Your task to perform on an android device: delete a single message in the gmail app Image 0: 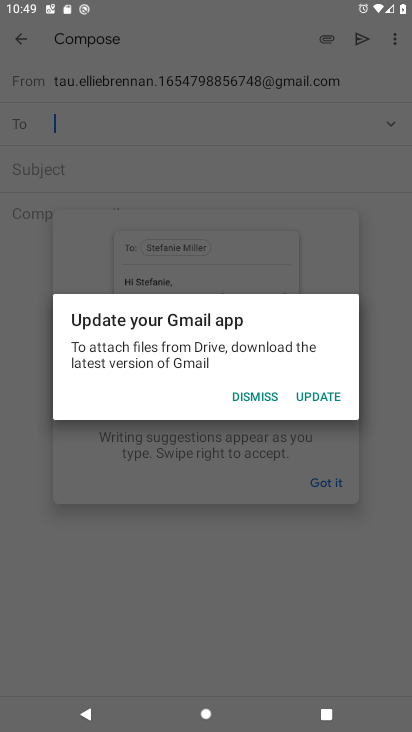
Step 0: press home button
Your task to perform on an android device: delete a single message in the gmail app Image 1: 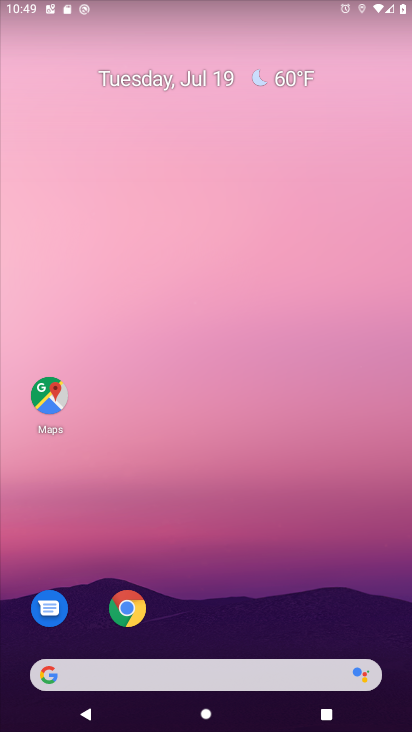
Step 1: drag from (225, 650) to (157, 105)
Your task to perform on an android device: delete a single message in the gmail app Image 2: 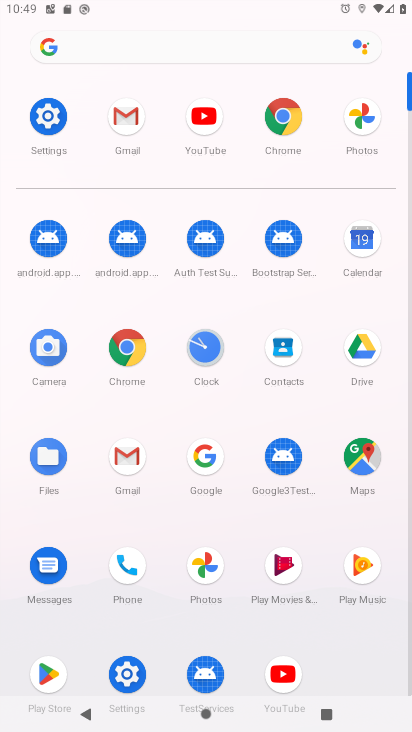
Step 2: click (126, 451)
Your task to perform on an android device: delete a single message in the gmail app Image 3: 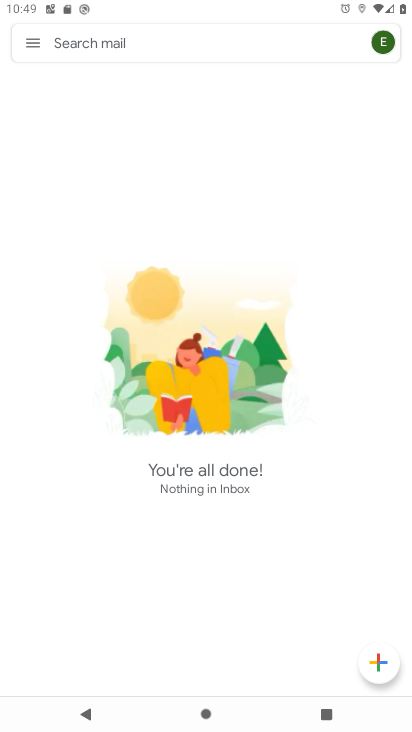
Step 3: click (25, 39)
Your task to perform on an android device: delete a single message in the gmail app Image 4: 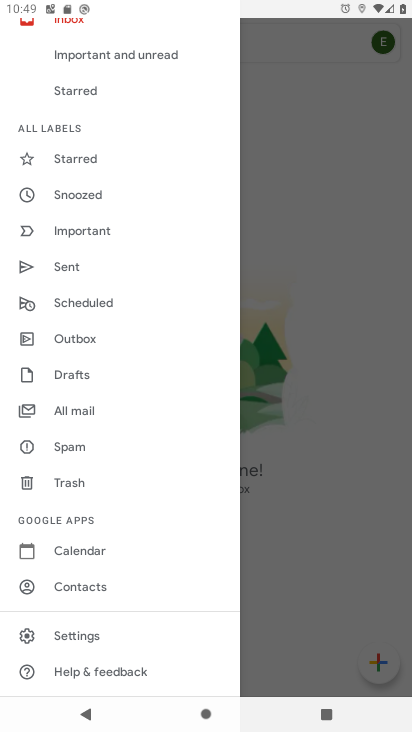
Step 4: click (68, 404)
Your task to perform on an android device: delete a single message in the gmail app Image 5: 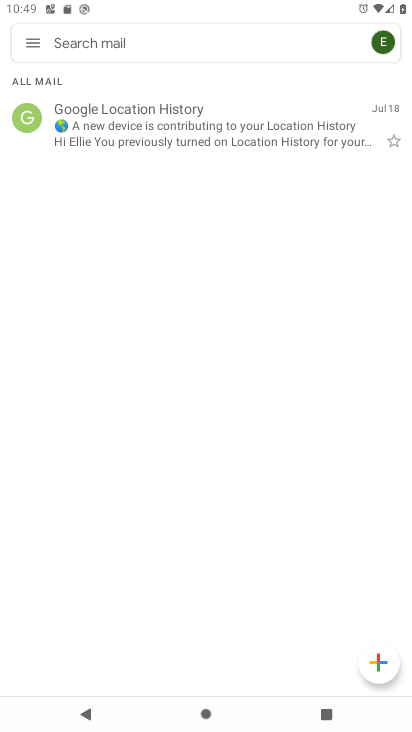
Step 5: click (153, 139)
Your task to perform on an android device: delete a single message in the gmail app Image 6: 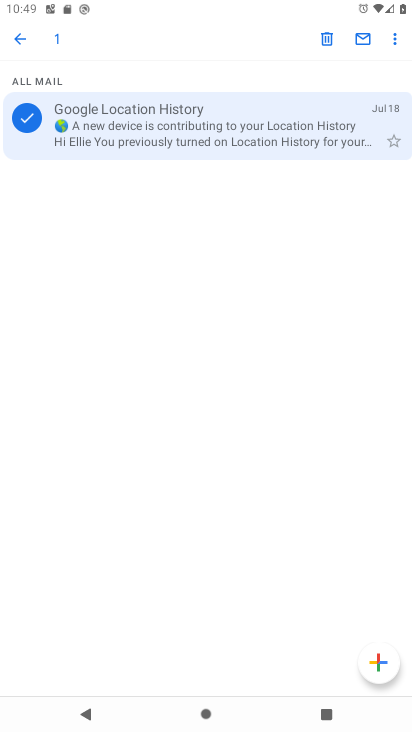
Step 6: click (320, 44)
Your task to perform on an android device: delete a single message in the gmail app Image 7: 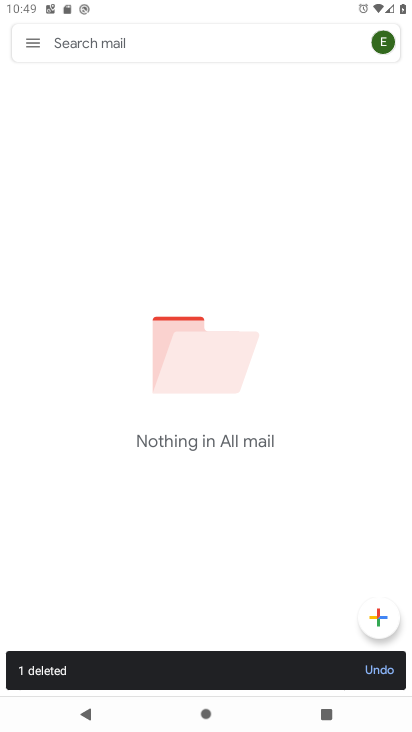
Step 7: task complete